Your task to perform on an android device: Open notification settings Image 0: 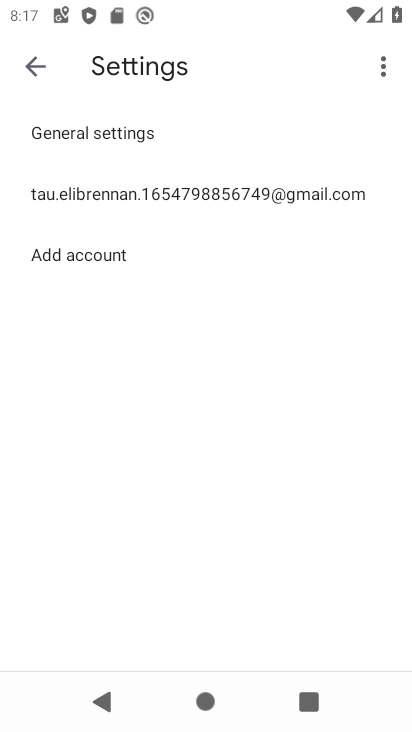
Step 0: press home button
Your task to perform on an android device: Open notification settings Image 1: 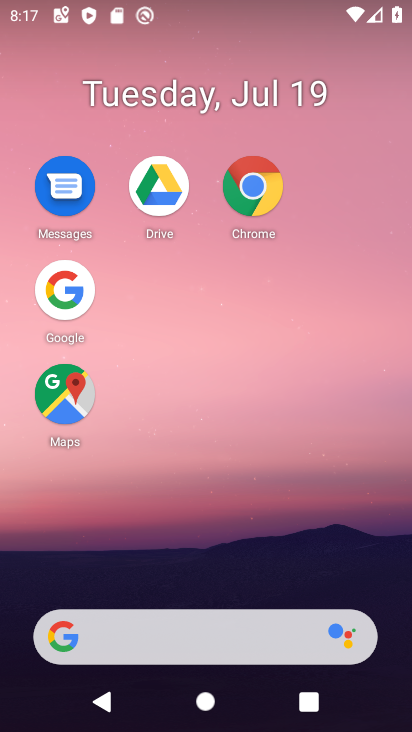
Step 1: drag from (179, 588) to (315, 2)
Your task to perform on an android device: Open notification settings Image 2: 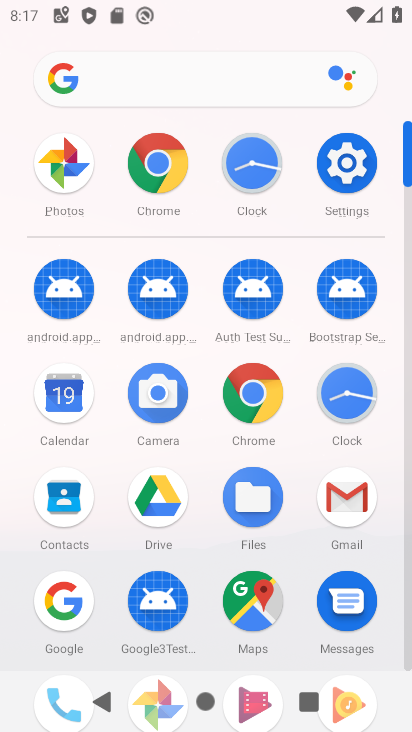
Step 2: click (355, 149)
Your task to perform on an android device: Open notification settings Image 3: 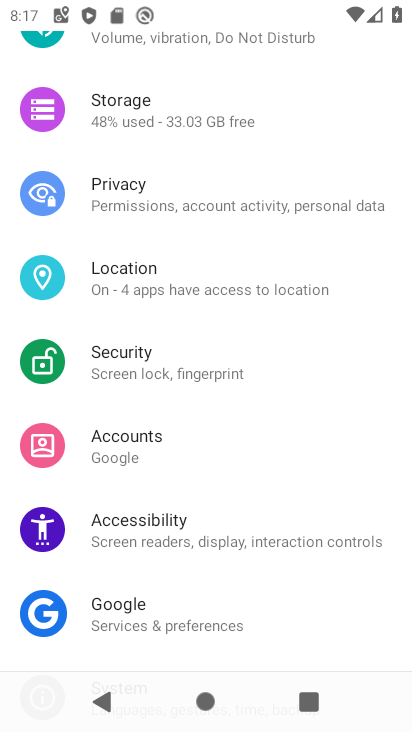
Step 3: drag from (227, 269) to (164, 586)
Your task to perform on an android device: Open notification settings Image 4: 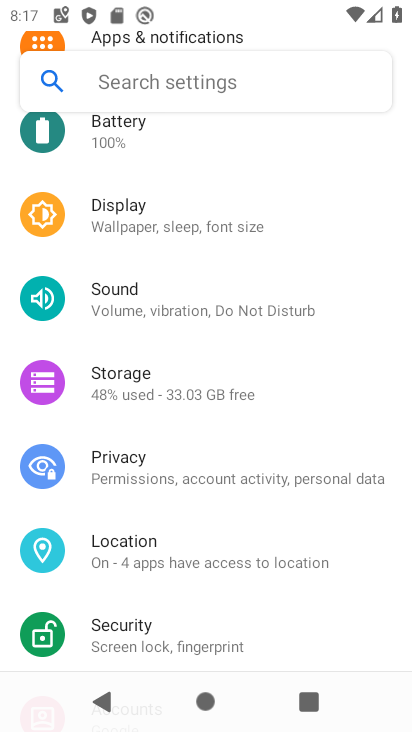
Step 4: drag from (204, 179) to (181, 476)
Your task to perform on an android device: Open notification settings Image 5: 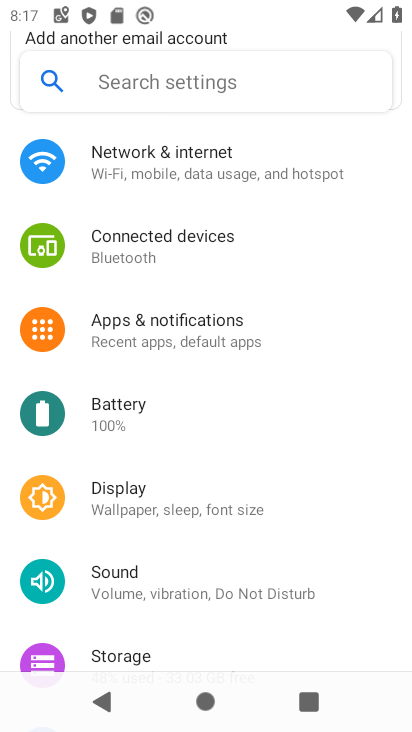
Step 5: click (151, 336)
Your task to perform on an android device: Open notification settings Image 6: 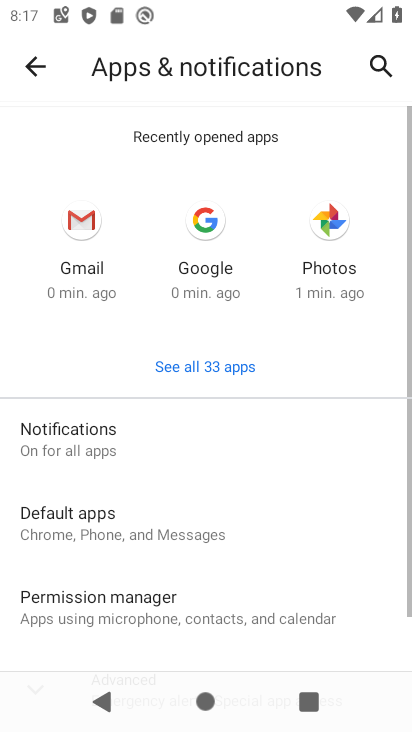
Step 6: click (66, 420)
Your task to perform on an android device: Open notification settings Image 7: 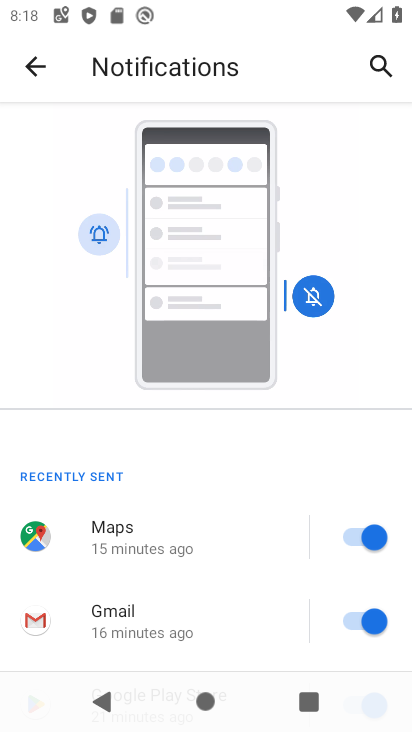
Step 7: task complete